Your task to perform on an android device: Open wifi settings Image 0: 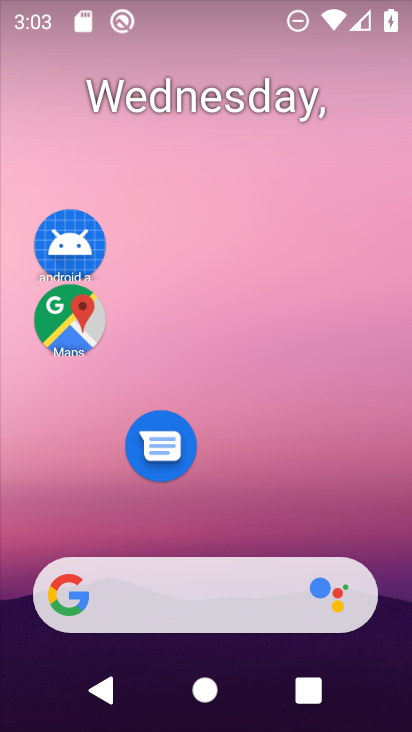
Step 0: drag from (365, 482) to (289, 191)
Your task to perform on an android device: Open wifi settings Image 1: 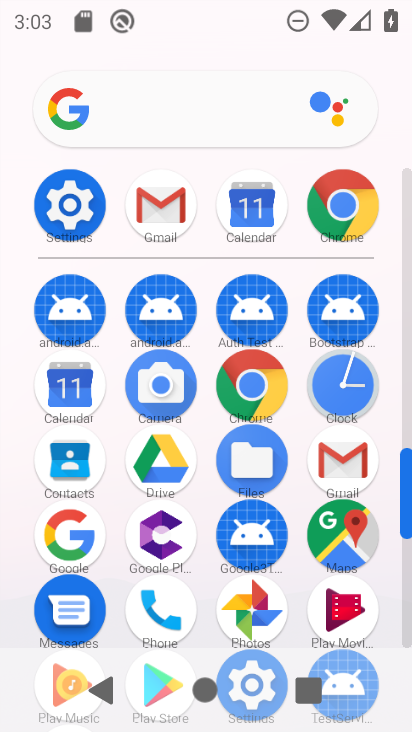
Step 1: click (69, 201)
Your task to perform on an android device: Open wifi settings Image 2: 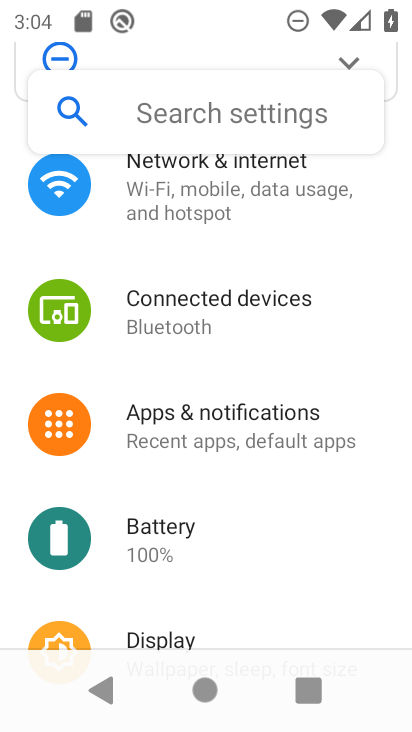
Step 2: drag from (217, 553) to (210, 640)
Your task to perform on an android device: Open wifi settings Image 3: 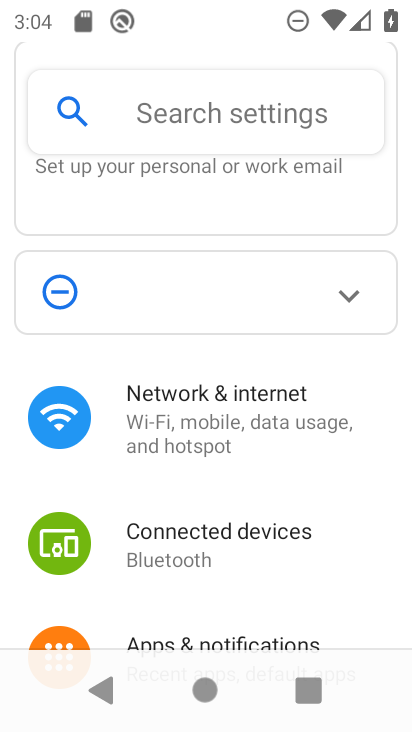
Step 3: click (226, 411)
Your task to perform on an android device: Open wifi settings Image 4: 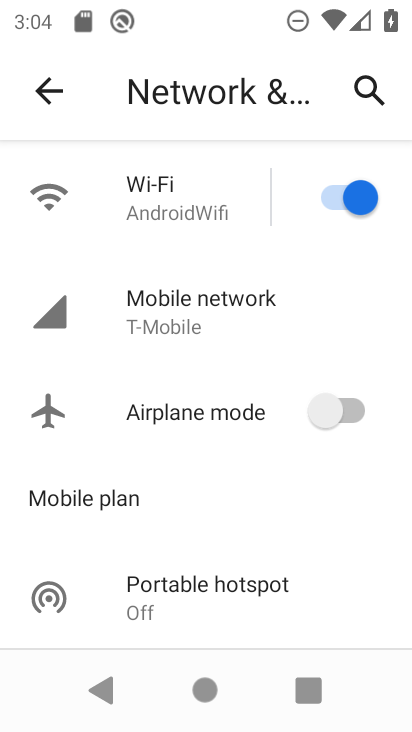
Step 4: click (194, 188)
Your task to perform on an android device: Open wifi settings Image 5: 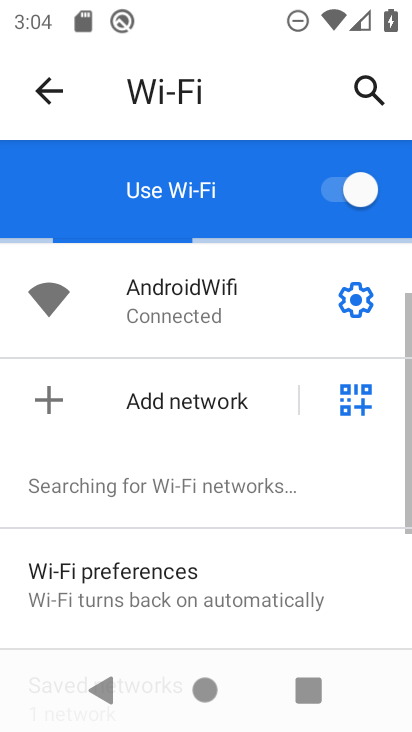
Step 5: task complete